Your task to perform on an android device: check battery use Image 0: 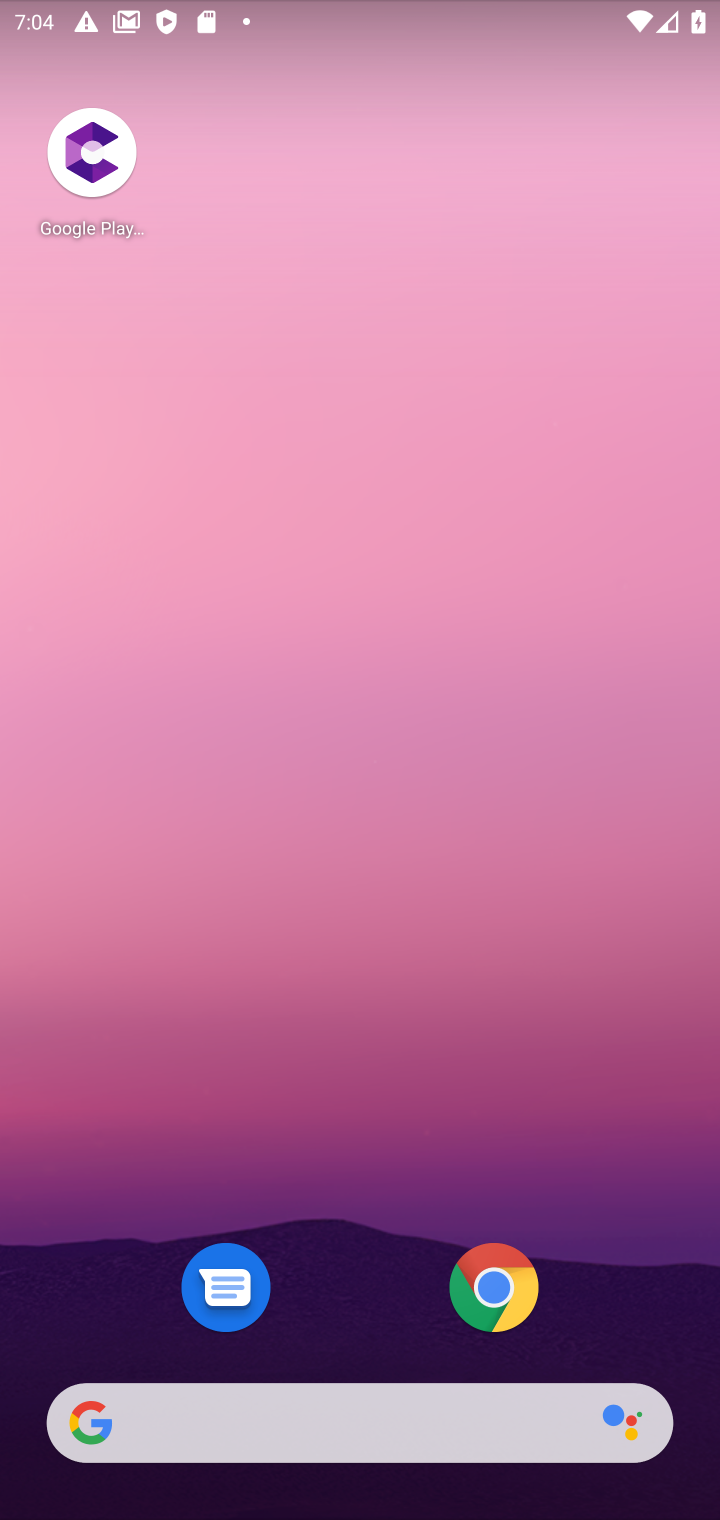
Step 0: drag from (426, 1001) to (493, 316)
Your task to perform on an android device: check battery use Image 1: 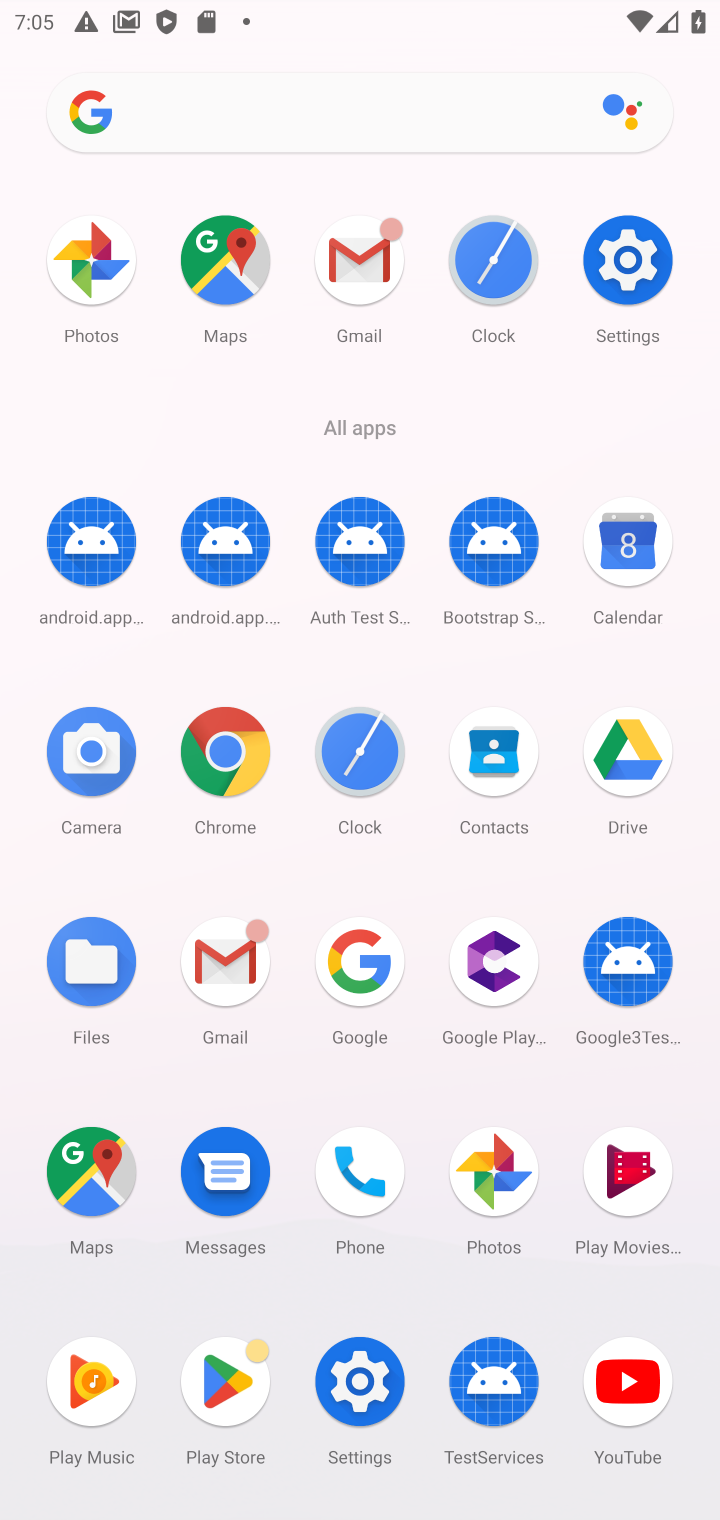
Step 1: click (351, 1385)
Your task to perform on an android device: check battery use Image 2: 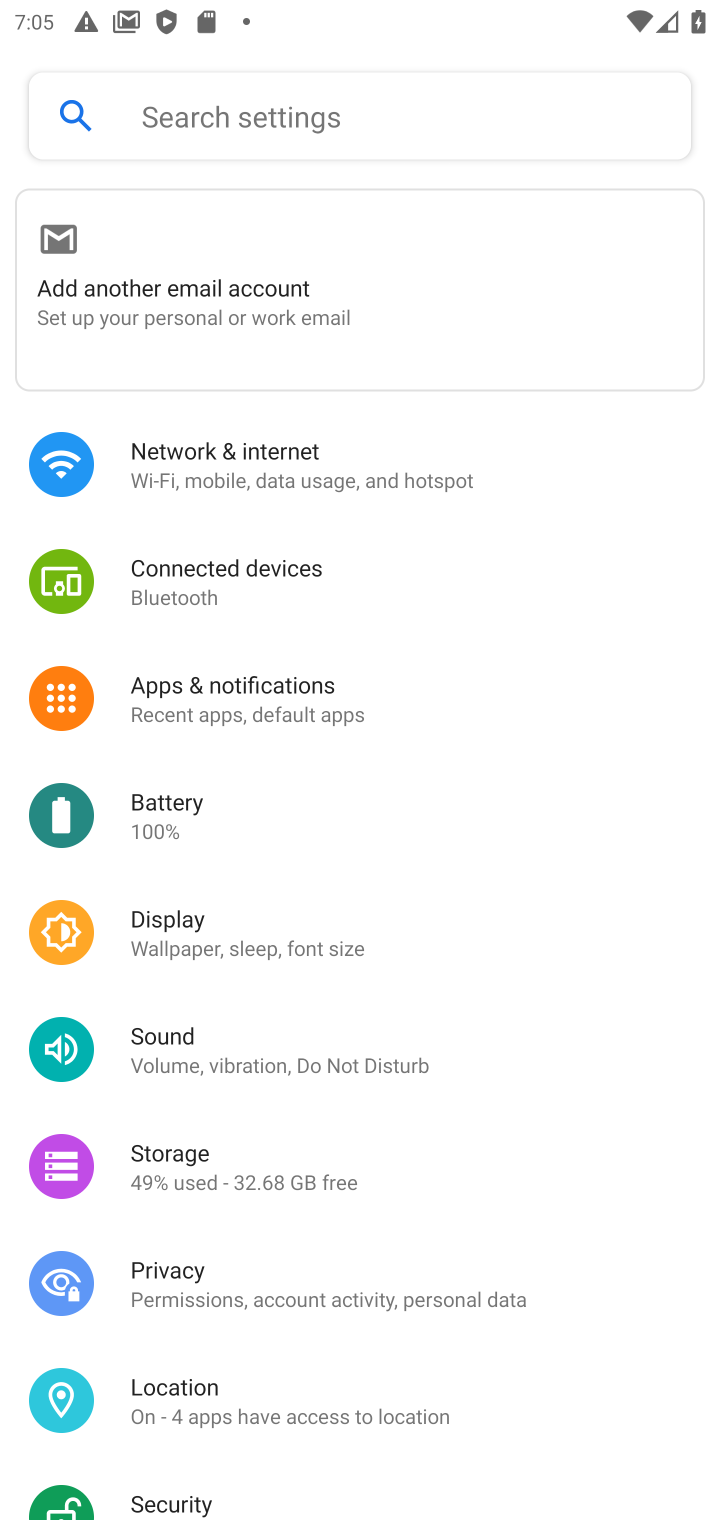
Step 2: drag from (365, 1262) to (443, 577)
Your task to perform on an android device: check battery use Image 3: 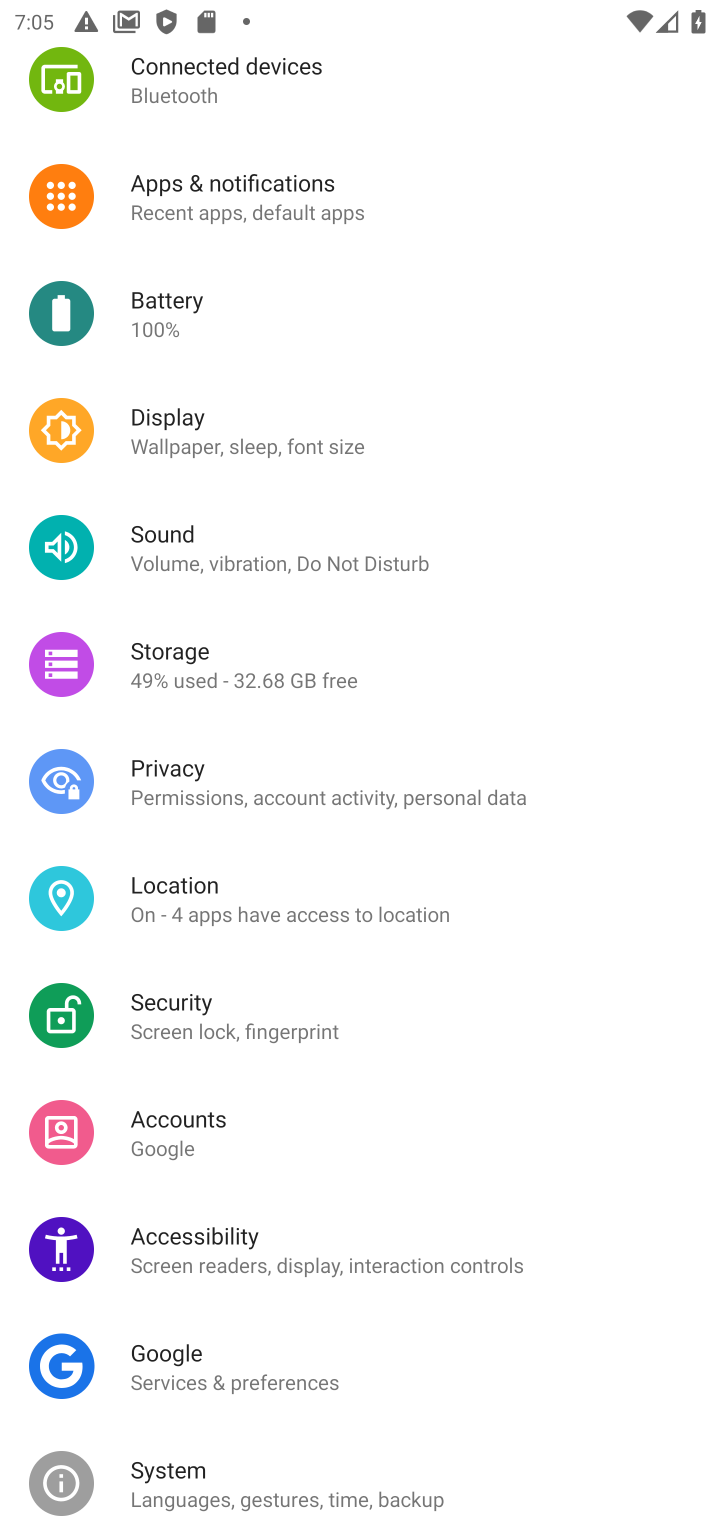
Step 3: click (355, 318)
Your task to perform on an android device: check battery use Image 4: 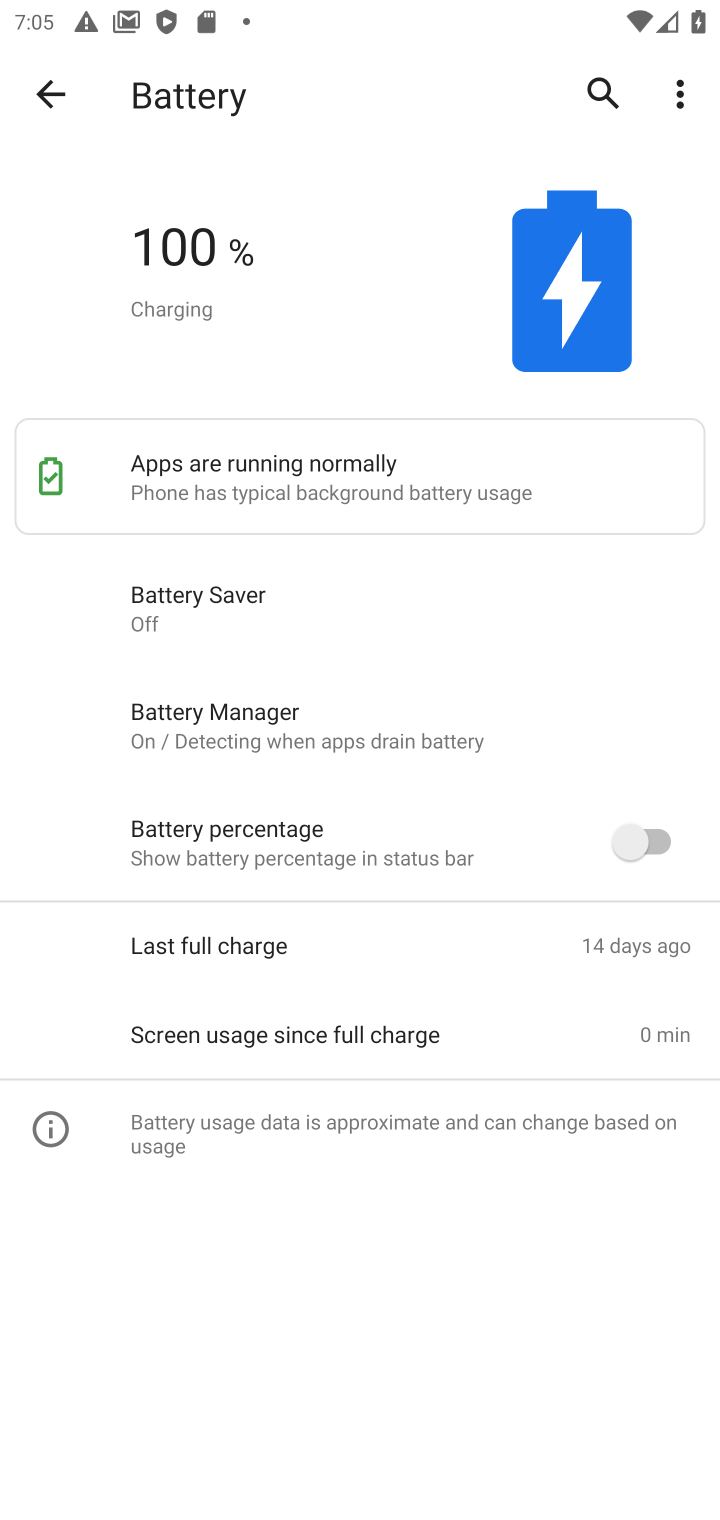
Step 4: task complete